Your task to perform on an android device: Play the last video I watched on Youtube Image 0: 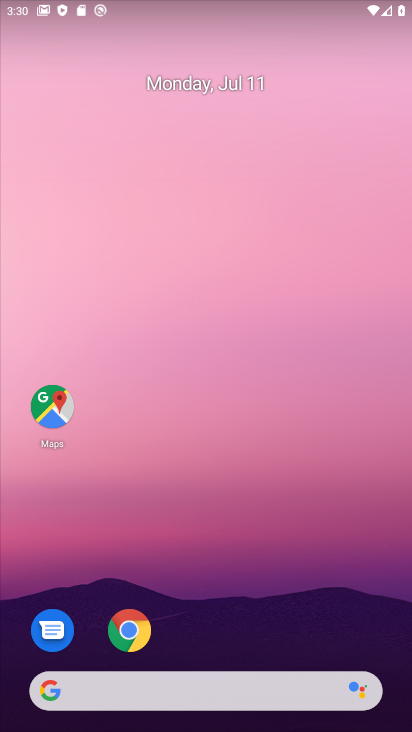
Step 0: drag from (253, 589) to (245, 248)
Your task to perform on an android device: Play the last video I watched on Youtube Image 1: 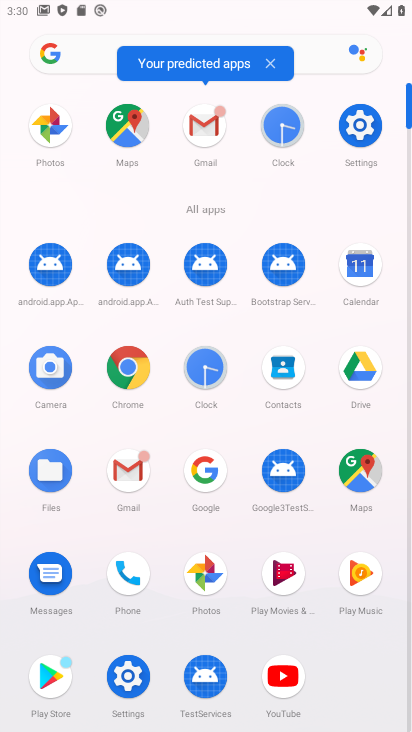
Step 1: click (270, 678)
Your task to perform on an android device: Play the last video I watched on Youtube Image 2: 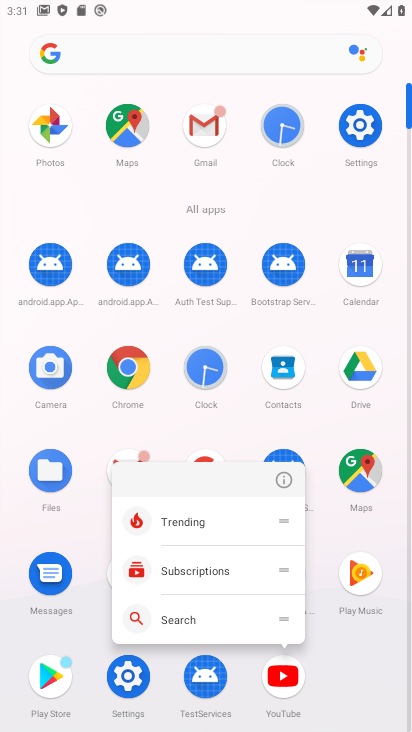
Step 2: click (275, 679)
Your task to perform on an android device: Play the last video I watched on Youtube Image 3: 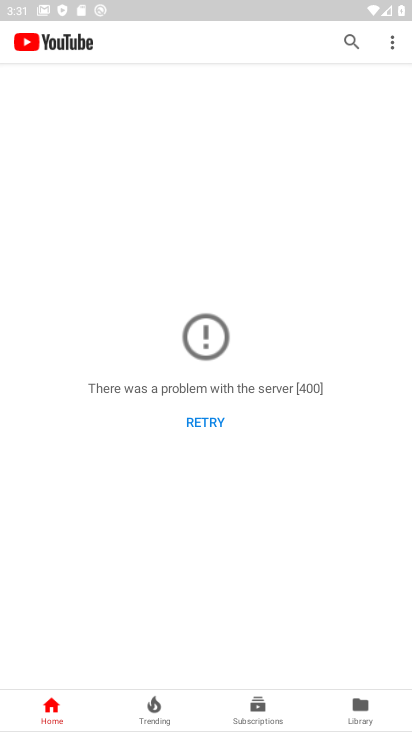
Step 3: click (343, 35)
Your task to perform on an android device: Play the last video I watched on Youtube Image 4: 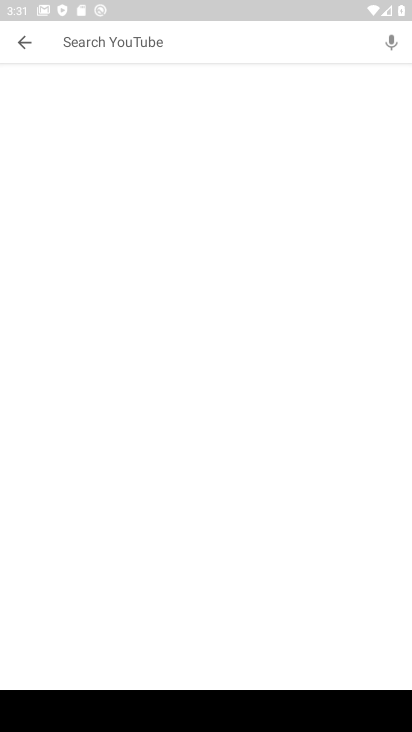
Step 4: click (170, 37)
Your task to perform on an android device: Play the last video I watched on Youtube Image 5: 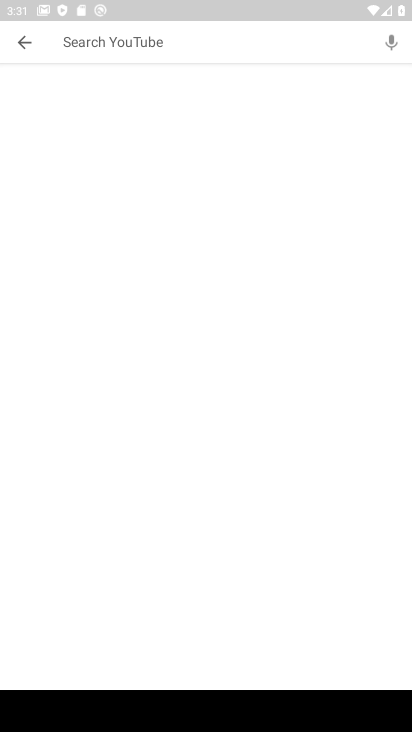
Step 5: type "delhi love "
Your task to perform on an android device: Play the last video I watched on Youtube Image 6: 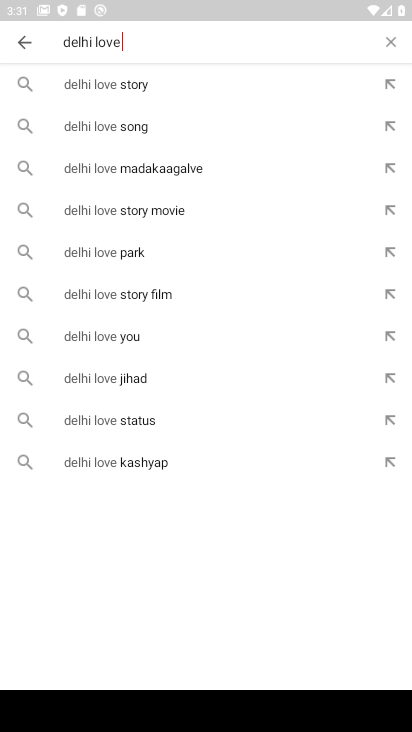
Step 6: click (75, 78)
Your task to perform on an android device: Play the last video I watched on Youtube Image 7: 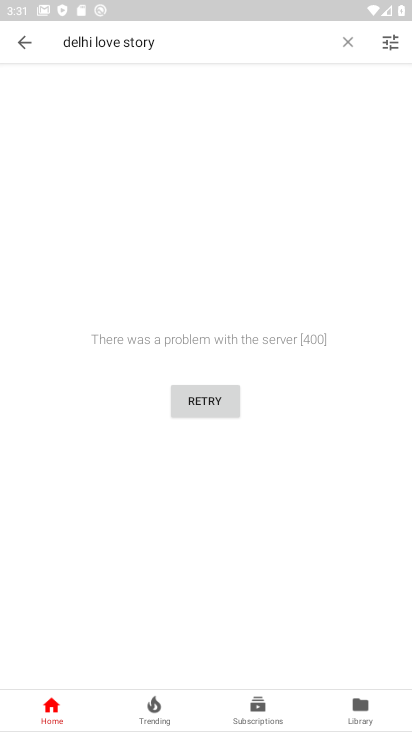
Step 7: task complete